Your task to perform on an android device: turn on wifi Image 0: 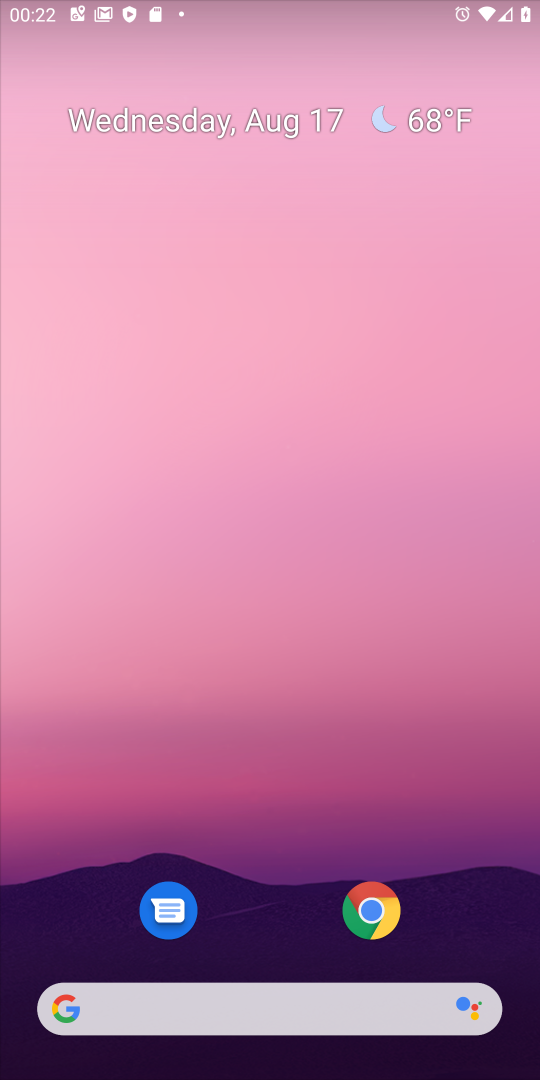
Step 0: press home button
Your task to perform on an android device: turn on wifi Image 1: 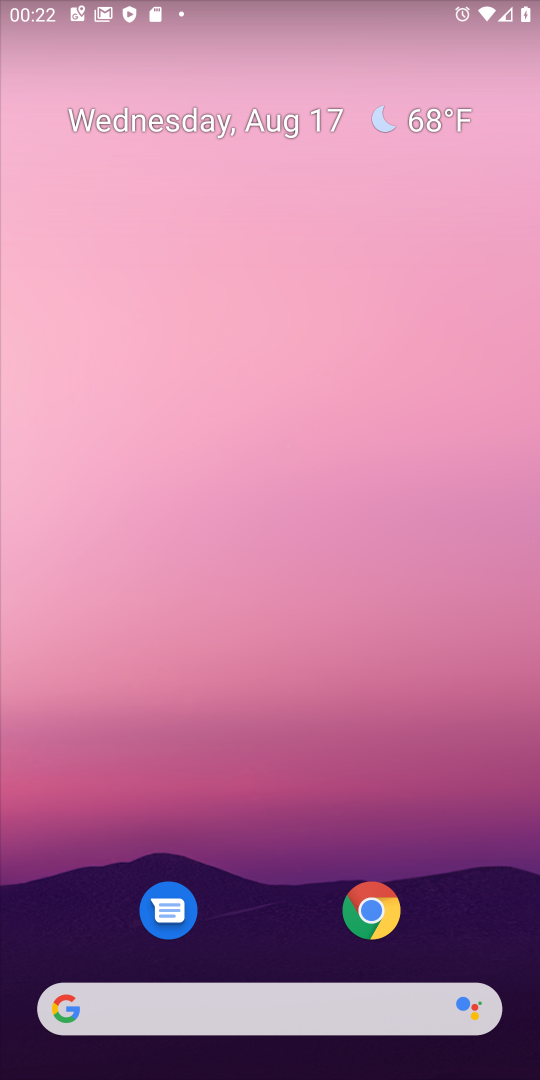
Step 1: drag from (244, 935) to (229, 76)
Your task to perform on an android device: turn on wifi Image 2: 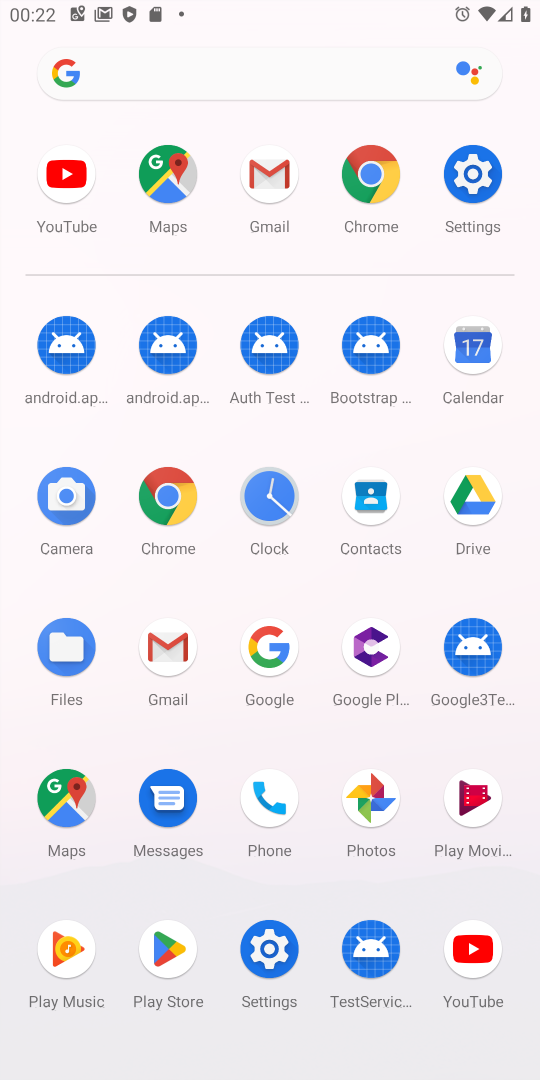
Step 2: click (279, 944)
Your task to perform on an android device: turn on wifi Image 3: 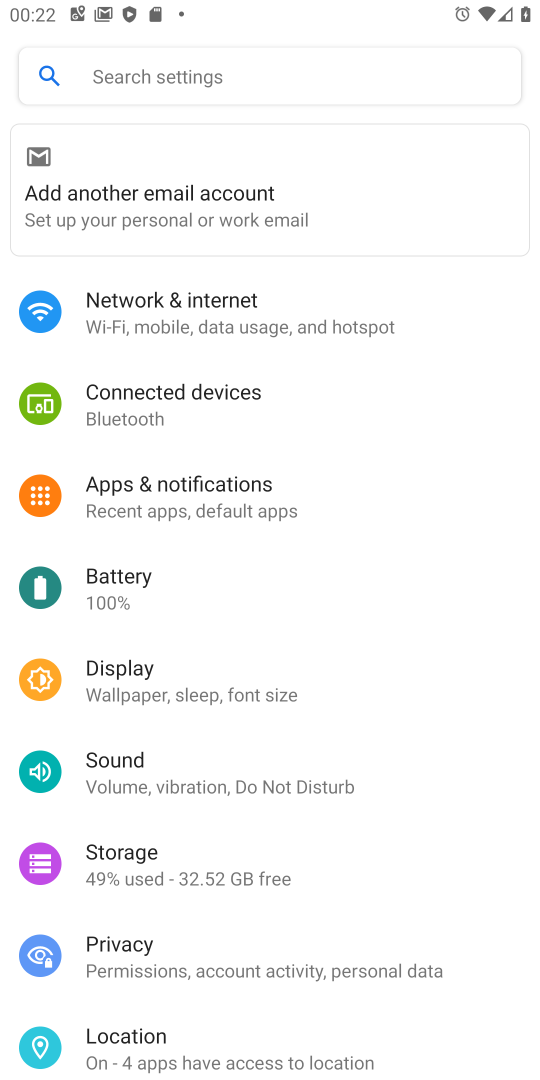
Step 3: click (256, 329)
Your task to perform on an android device: turn on wifi Image 4: 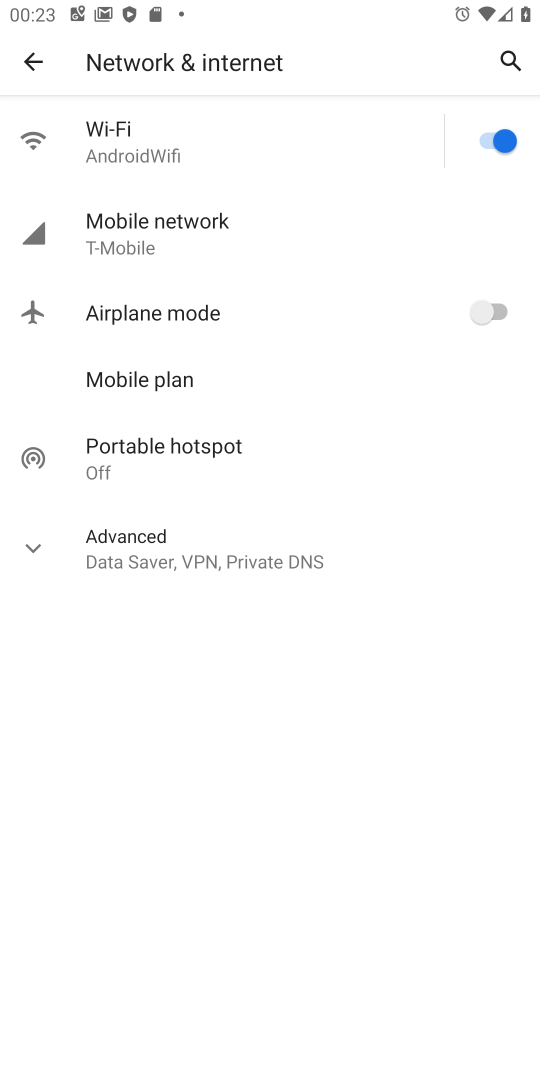
Step 4: task complete